Your task to perform on an android device: Open calendar and show me the first week of next month Image 0: 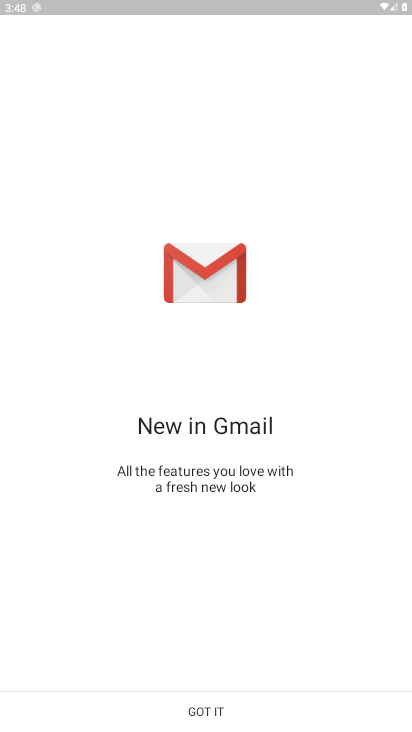
Step 0: press home button
Your task to perform on an android device: Open calendar and show me the first week of next month Image 1: 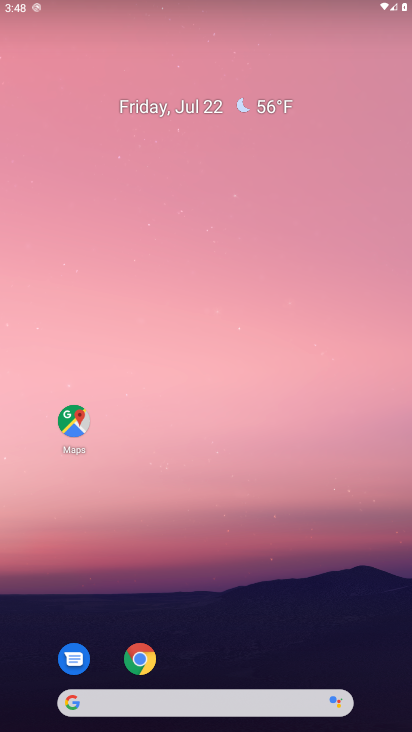
Step 1: click (266, 241)
Your task to perform on an android device: Open calendar and show me the first week of next month Image 2: 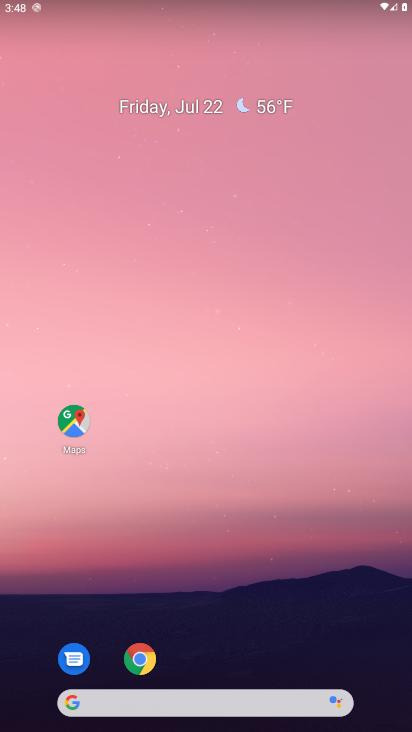
Step 2: drag from (256, 691) to (283, 238)
Your task to perform on an android device: Open calendar and show me the first week of next month Image 3: 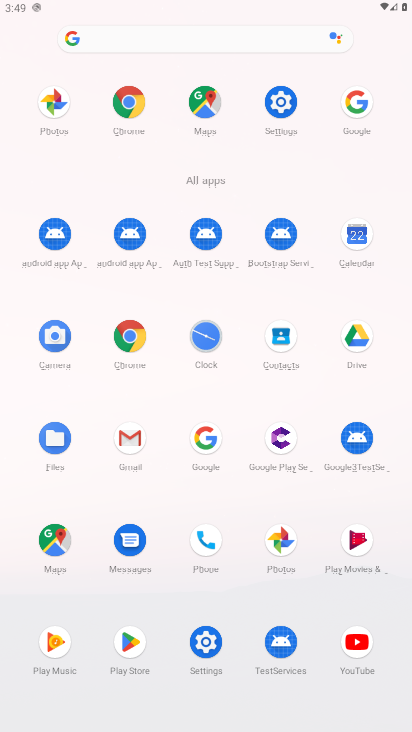
Step 3: click (355, 234)
Your task to perform on an android device: Open calendar and show me the first week of next month Image 4: 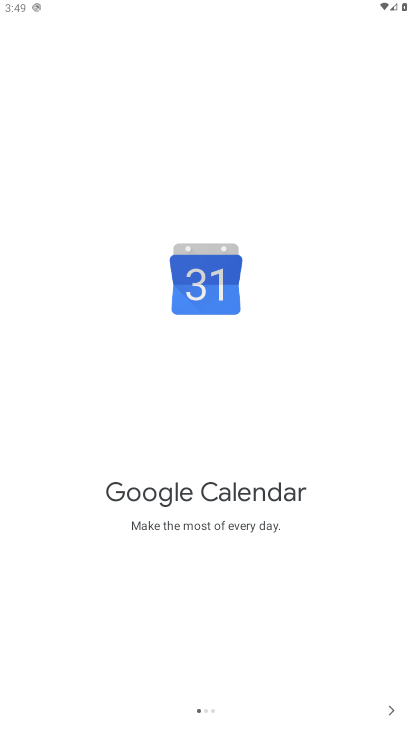
Step 4: click (383, 710)
Your task to perform on an android device: Open calendar and show me the first week of next month Image 5: 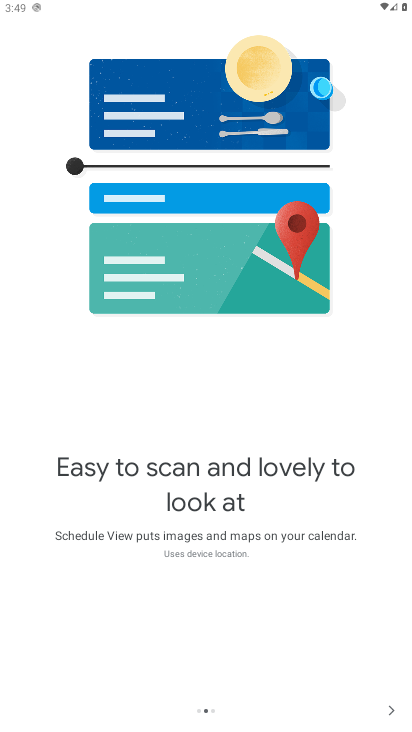
Step 5: click (383, 710)
Your task to perform on an android device: Open calendar and show me the first week of next month Image 6: 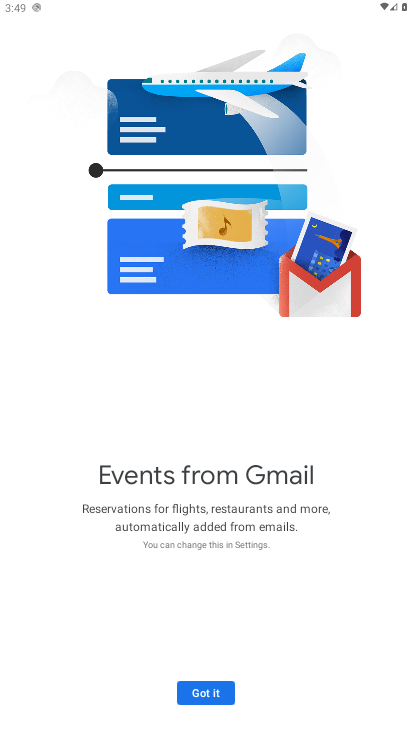
Step 6: click (191, 689)
Your task to perform on an android device: Open calendar and show me the first week of next month Image 7: 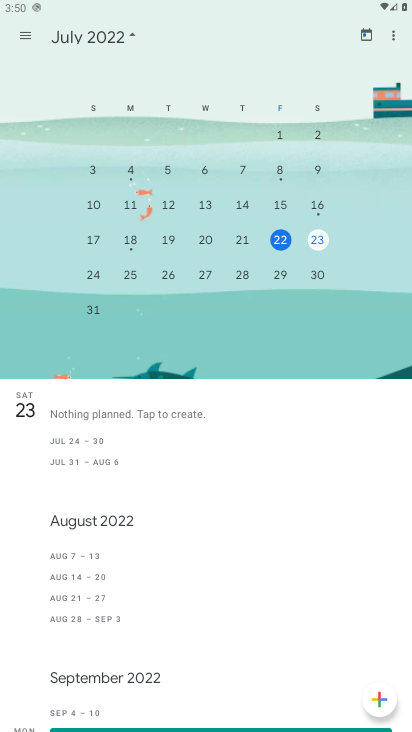
Step 7: drag from (371, 211) to (16, 217)
Your task to perform on an android device: Open calendar and show me the first week of next month Image 8: 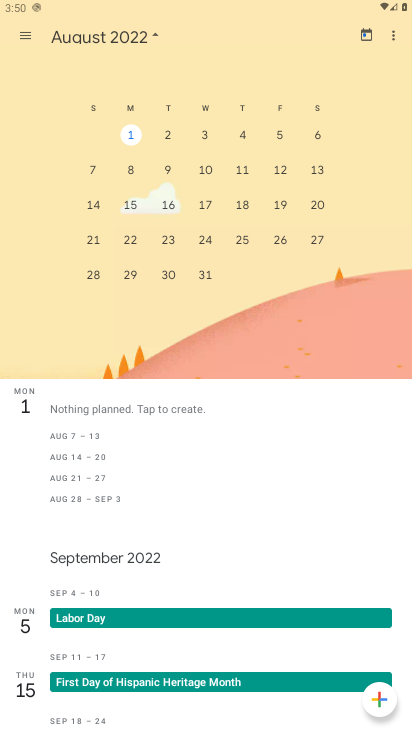
Step 8: click (131, 133)
Your task to perform on an android device: Open calendar and show me the first week of next month Image 9: 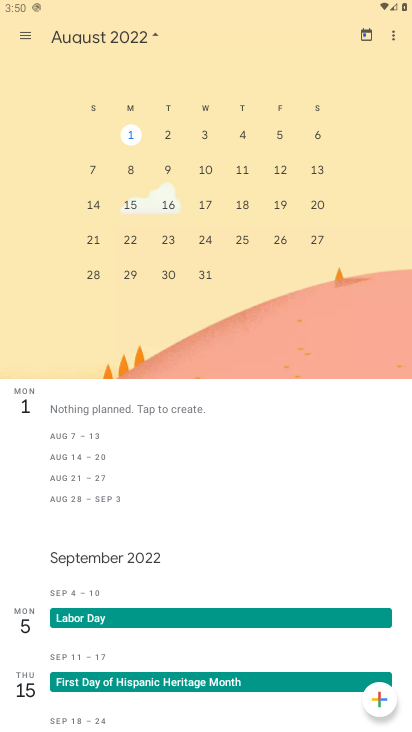
Step 9: task complete